Your task to perform on an android device: View the shopping cart on bestbuy. Search for asus zenbook on bestbuy, select the first entry, and add it to the cart. Image 0: 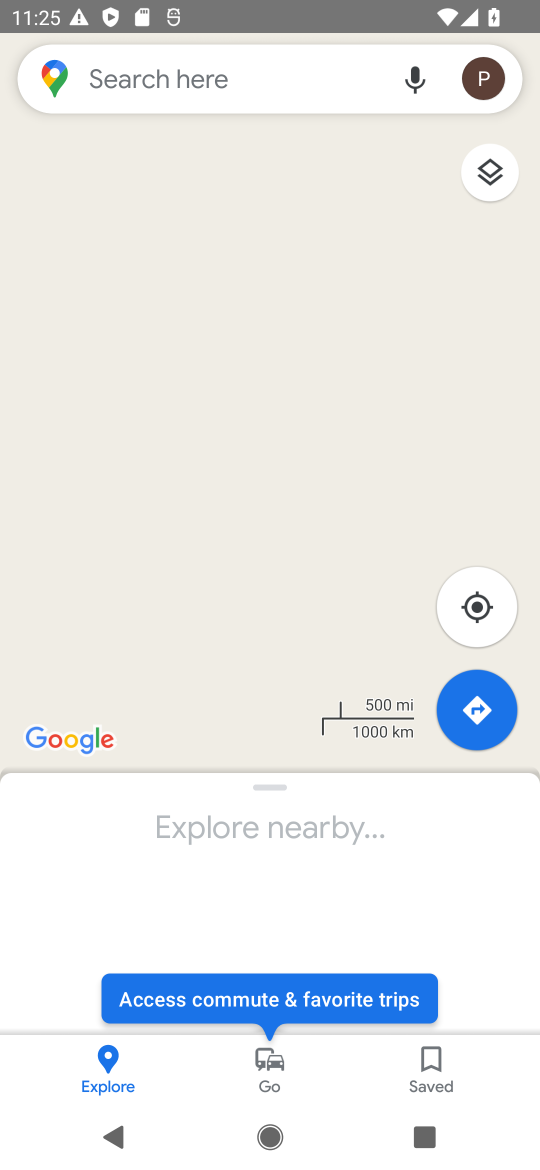
Step 0: press home button
Your task to perform on an android device: View the shopping cart on bestbuy. Search for asus zenbook on bestbuy, select the first entry, and add it to the cart. Image 1: 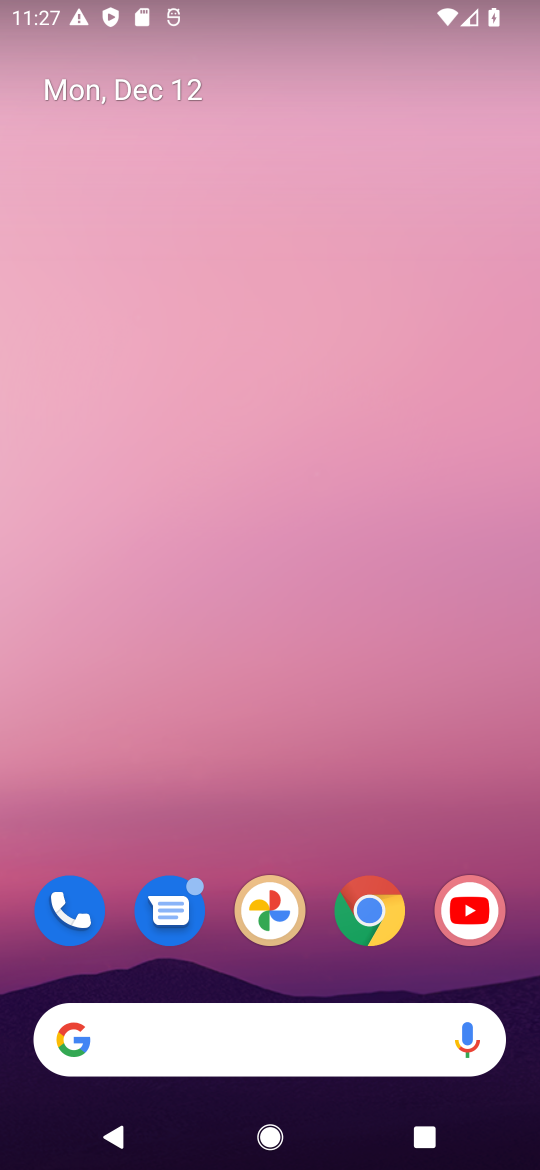
Step 1: click (384, 893)
Your task to perform on an android device: View the shopping cart on bestbuy. Search for asus zenbook on bestbuy, select the first entry, and add it to the cart. Image 2: 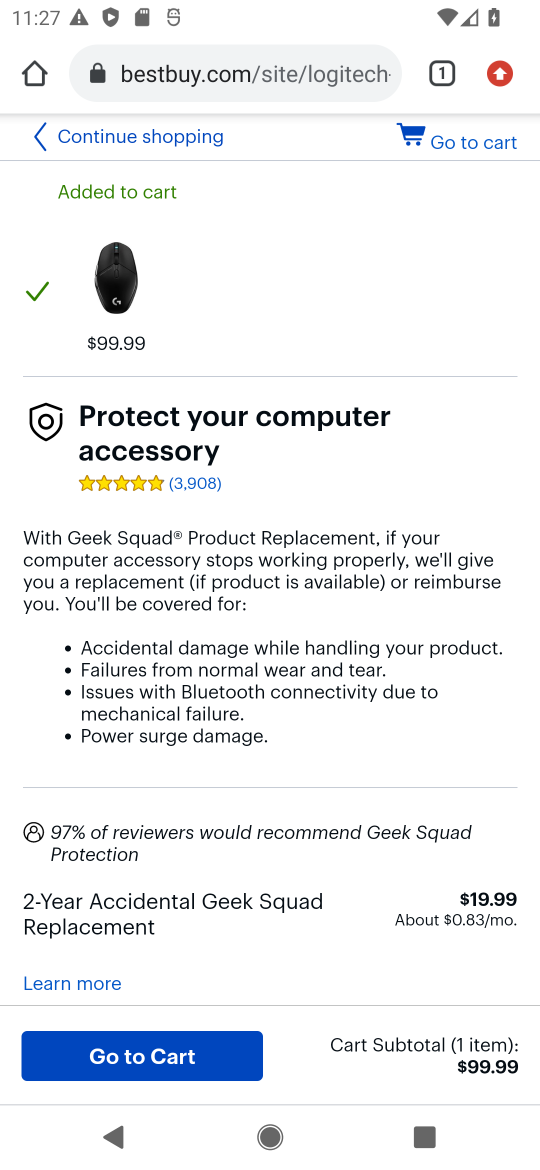
Step 2: click (200, 64)
Your task to perform on an android device: View the shopping cart on bestbuy. Search for asus zenbook on bestbuy, select the first entry, and add it to the cart. Image 3: 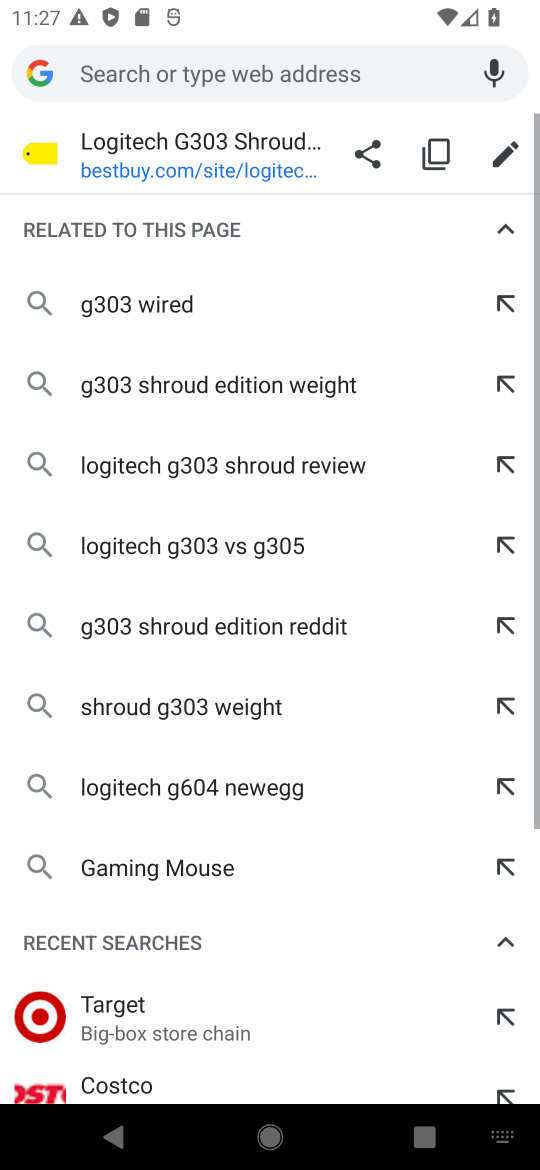
Step 3: click (139, 161)
Your task to perform on an android device: View the shopping cart on bestbuy. Search for asus zenbook on bestbuy, select the first entry, and add it to the cart. Image 4: 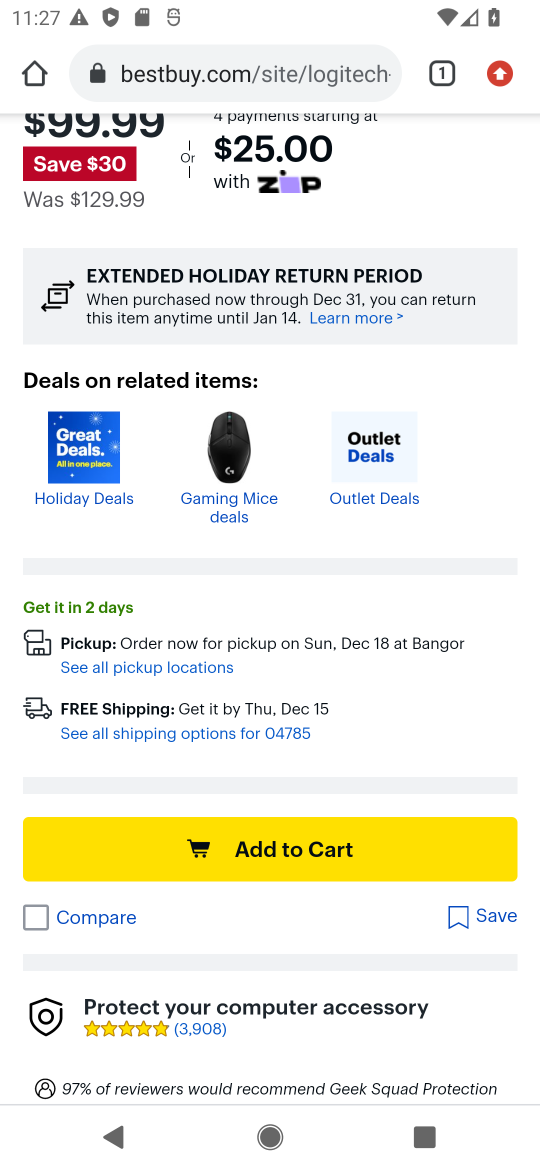
Step 4: drag from (392, 170) to (346, 1069)
Your task to perform on an android device: View the shopping cart on bestbuy. Search for asus zenbook on bestbuy, select the first entry, and add it to the cart. Image 5: 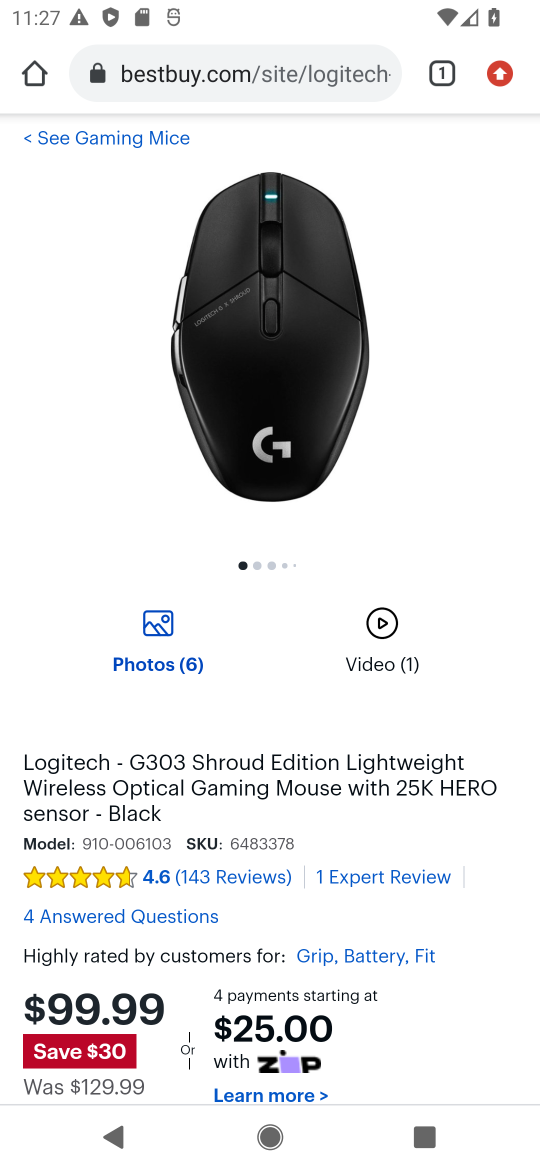
Step 5: drag from (359, 183) to (327, 977)
Your task to perform on an android device: View the shopping cart on bestbuy. Search for asus zenbook on bestbuy, select the first entry, and add it to the cart. Image 6: 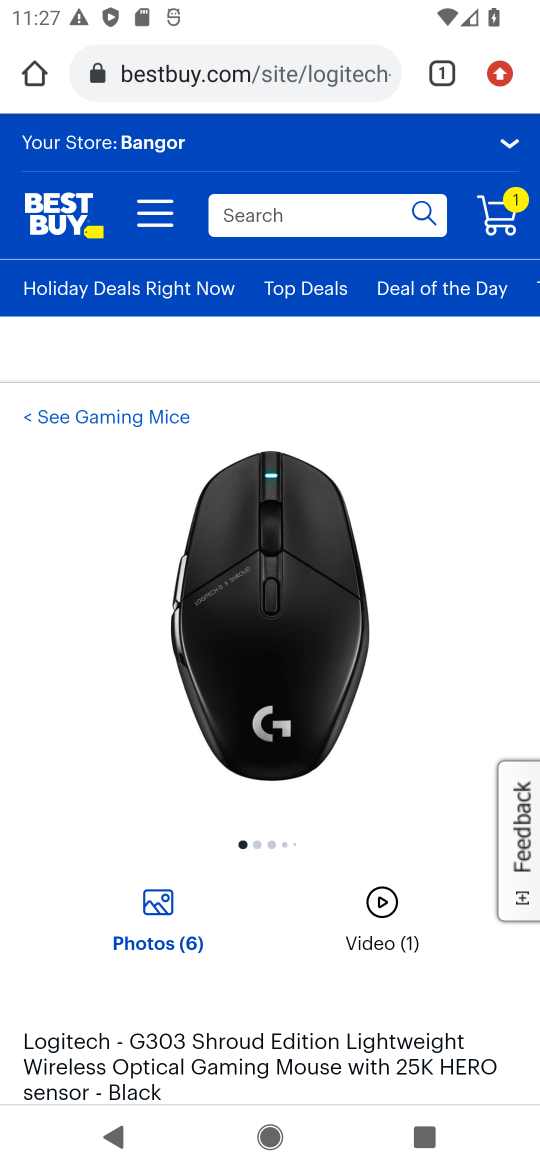
Step 6: click (302, 231)
Your task to perform on an android device: View the shopping cart on bestbuy. Search for asus zenbook on bestbuy, select the first entry, and add it to the cart. Image 7: 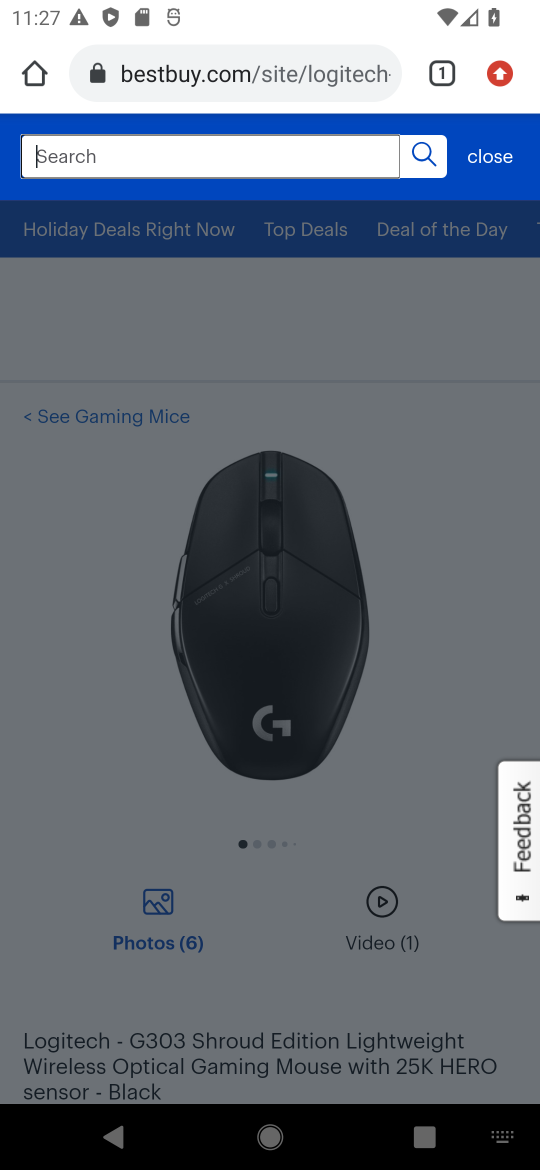
Step 7: type "asus zenbook"
Your task to perform on an android device: View the shopping cart on bestbuy. Search for asus zenbook on bestbuy, select the first entry, and add it to the cart. Image 8: 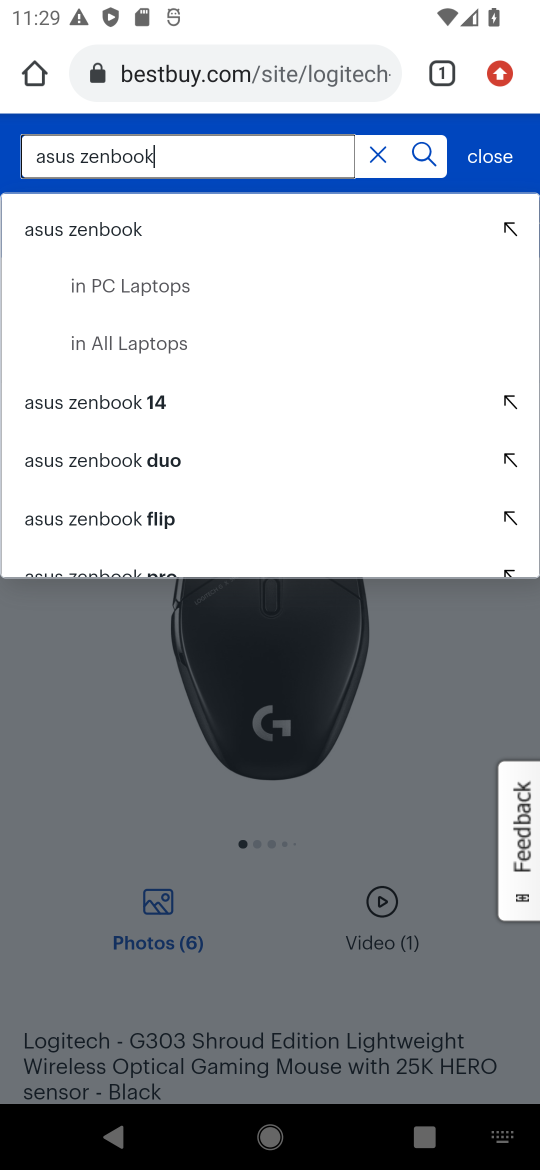
Step 8: click (59, 228)
Your task to perform on an android device: View the shopping cart on bestbuy. Search for asus zenbook on bestbuy, select the first entry, and add it to the cart. Image 9: 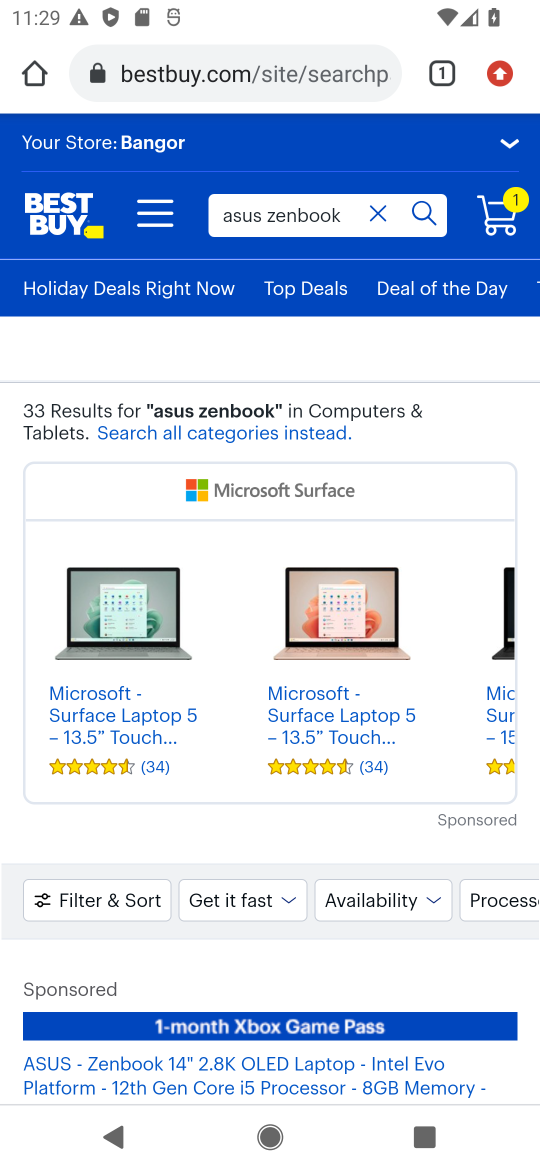
Step 9: drag from (462, 1078) to (395, 251)
Your task to perform on an android device: View the shopping cart on bestbuy. Search for asus zenbook on bestbuy, select the first entry, and add it to the cart. Image 10: 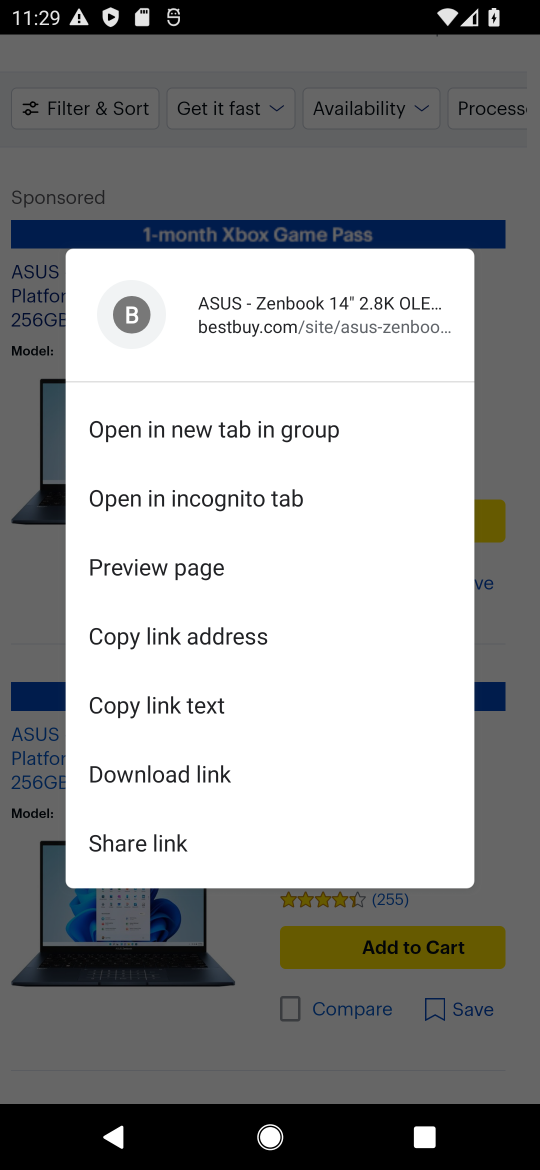
Step 10: click (379, 494)
Your task to perform on an android device: View the shopping cart on bestbuy. Search for asus zenbook on bestbuy, select the first entry, and add it to the cart. Image 11: 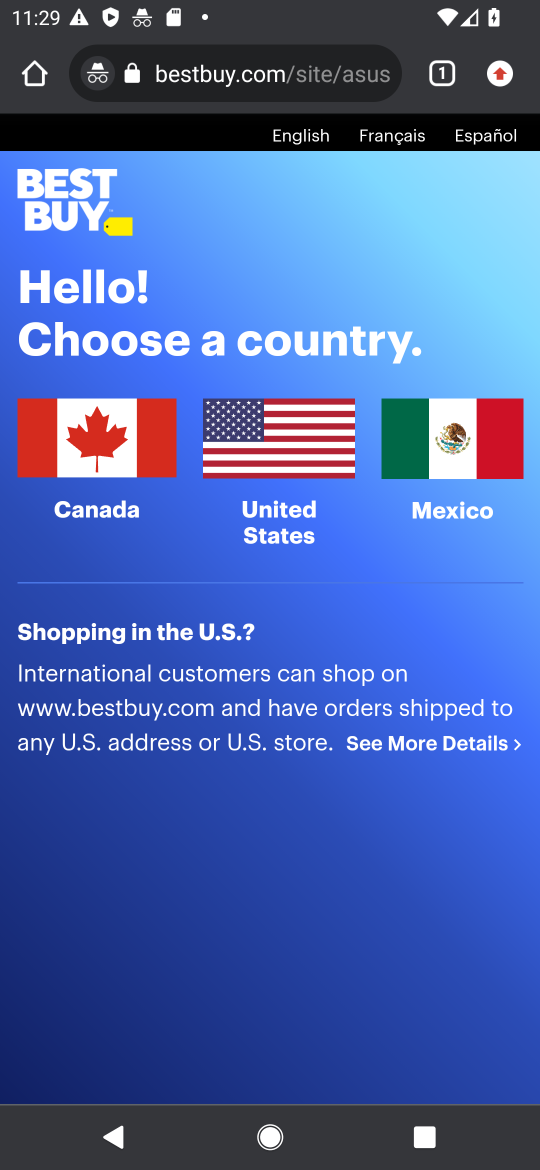
Step 11: click (440, 72)
Your task to perform on an android device: View the shopping cart on bestbuy. Search for asus zenbook on bestbuy, select the first entry, and add it to the cart. Image 12: 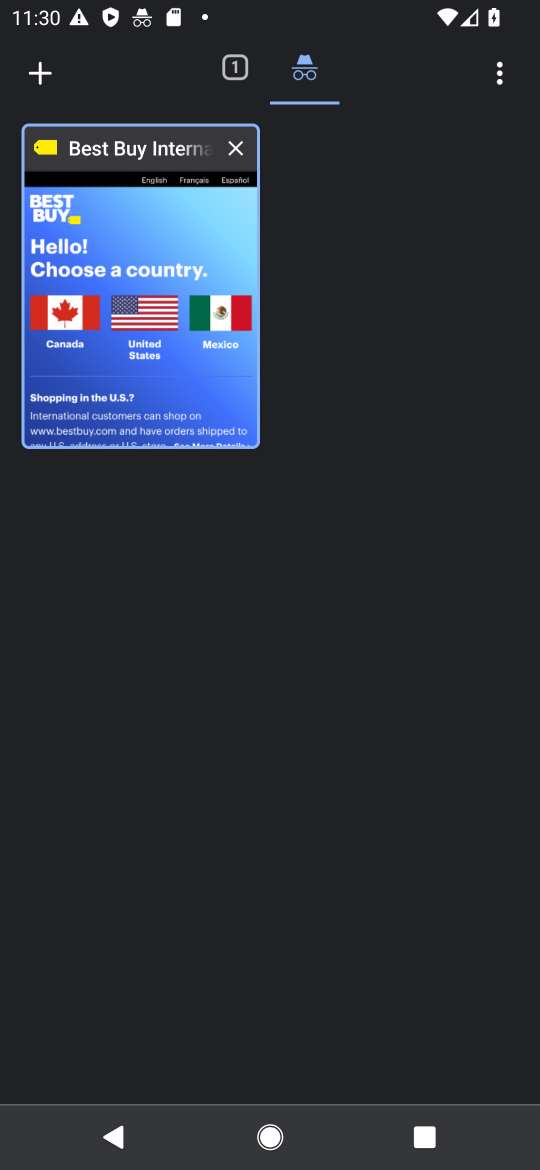
Step 12: click (102, 342)
Your task to perform on an android device: View the shopping cart on bestbuy. Search for asus zenbook on bestbuy, select the first entry, and add it to the cart. Image 13: 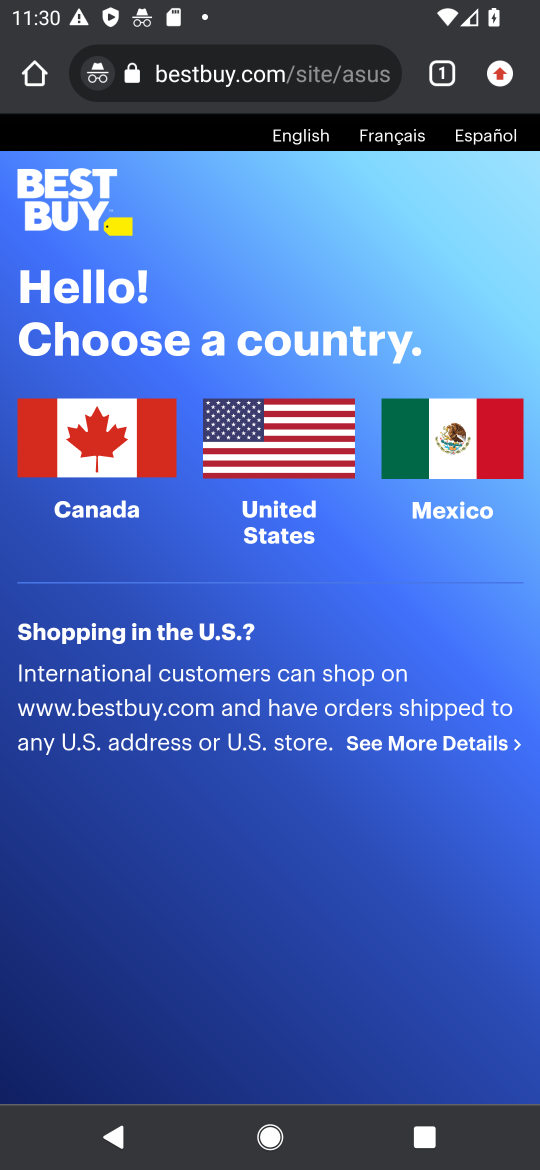
Step 13: task complete